Your task to perform on an android device: turn smart compose on in the gmail app Image 0: 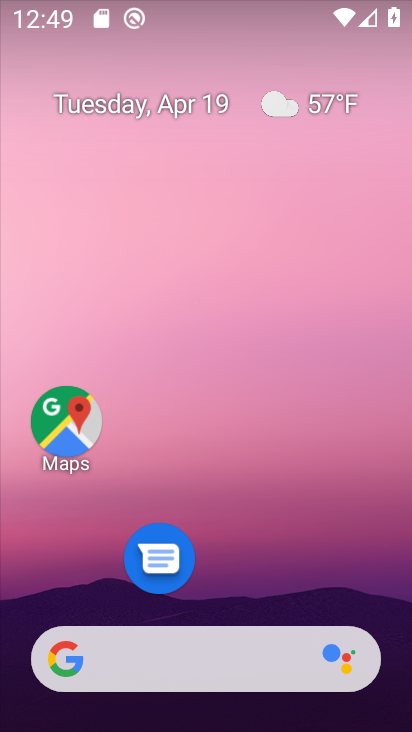
Step 0: drag from (249, 620) to (186, 129)
Your task to perform on an android device: turn smart compose on in the gmail app Image 1: 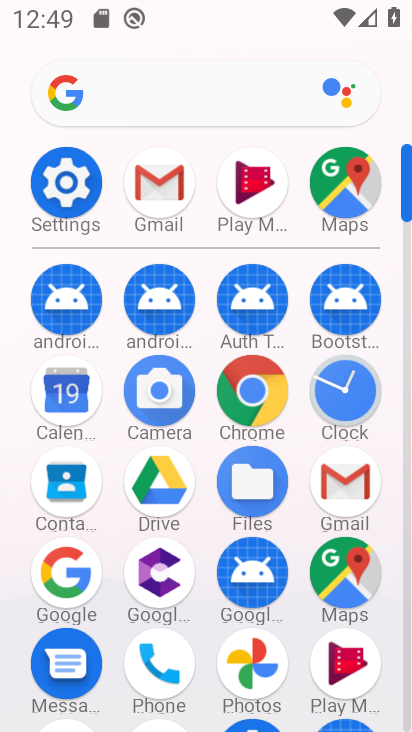
Step 1: click (167, 172)
Your task to perform on an android device: turn smart compose on in the gmail app Image 2: 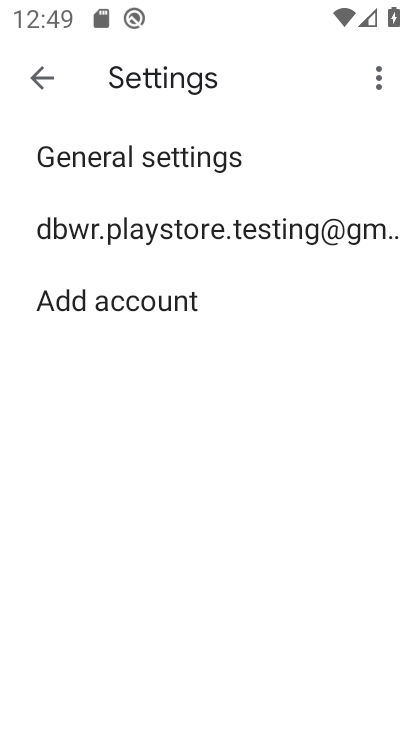
Step 2: click (171, 237)
Your task to perform on an android device: turn smart compose on in the gmail app Image 3: 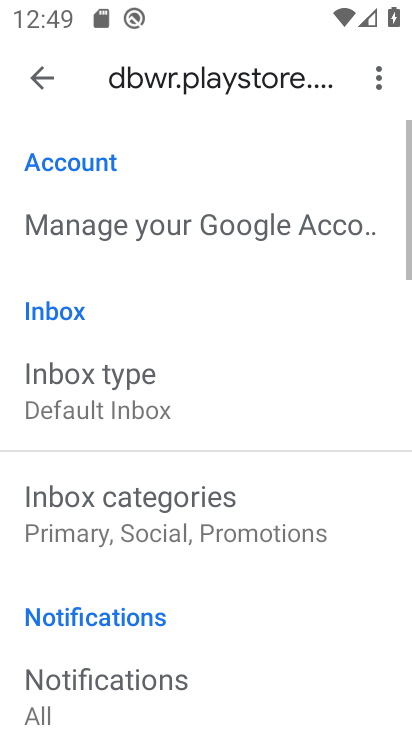
Step 3: task complete